Your task to perform on an android device: see creations saved in the google photos Image 0: 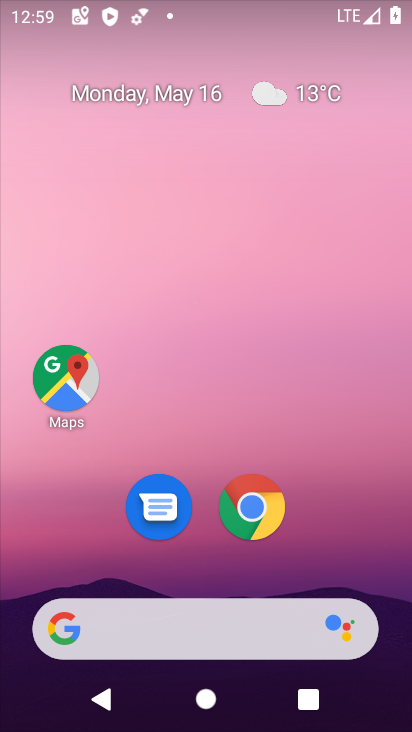
Step 0: drag from (347, 540) to (221, 99)
Your task to perform on an android device: see creations saved in the google photos Image 1: 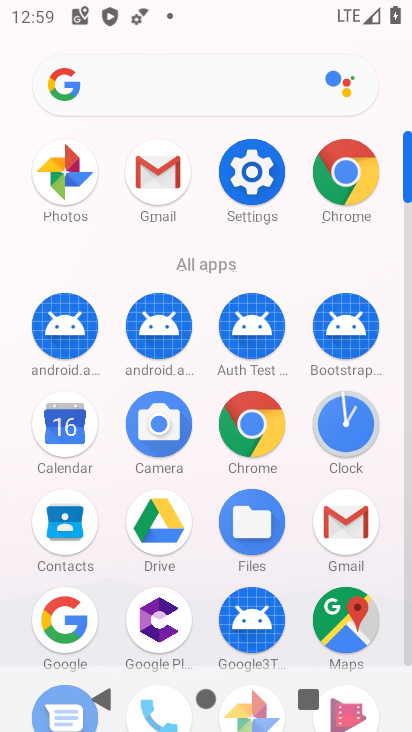
Step 1: click (70, 178)
Your task to perform on an android device: see creations saved in the google photos Image 2: 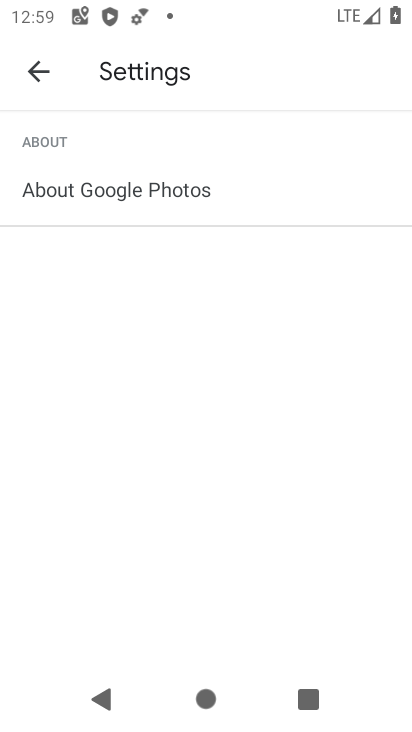
Step 2: click (30, 60)
Your task to perform on an android device: see creations saved in the google photos Image 3: 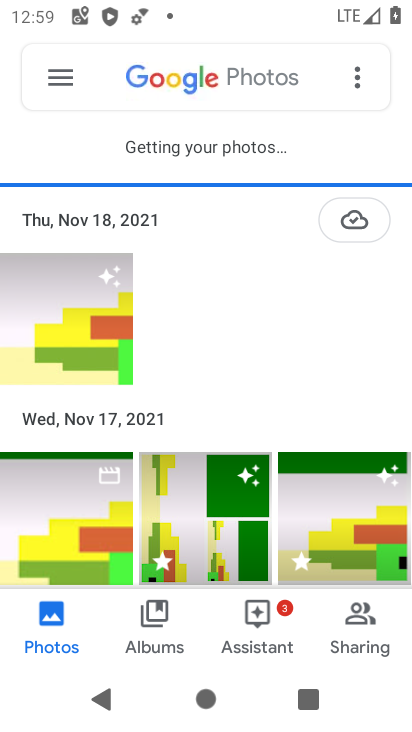
Step 3: click (194, 76)
Your task to perform on an android device: see creations saved in the google photos Image 4: 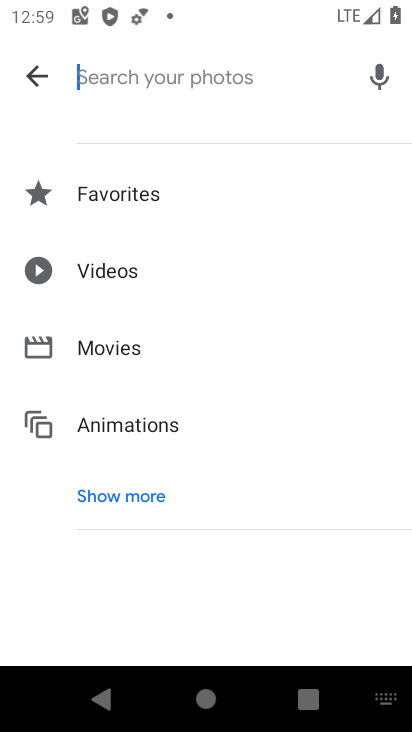
Step 4: type "creations"
Your task to perform on an android device: see creations saved in the google photos Image 5: 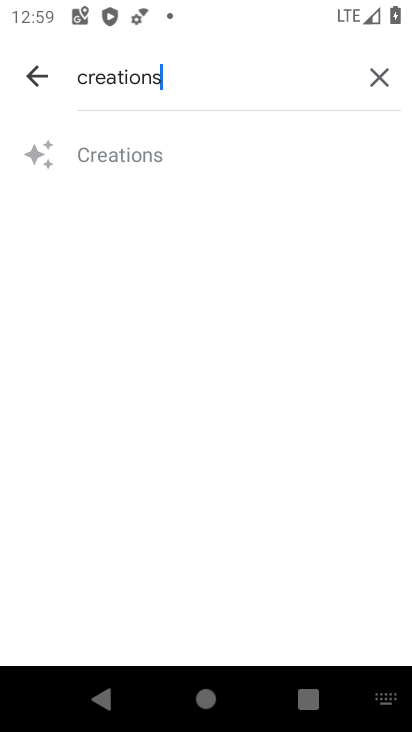
Step 5: click (153, 150)
Your task to perform on an android device: see creations saved in the google photos Image 6: 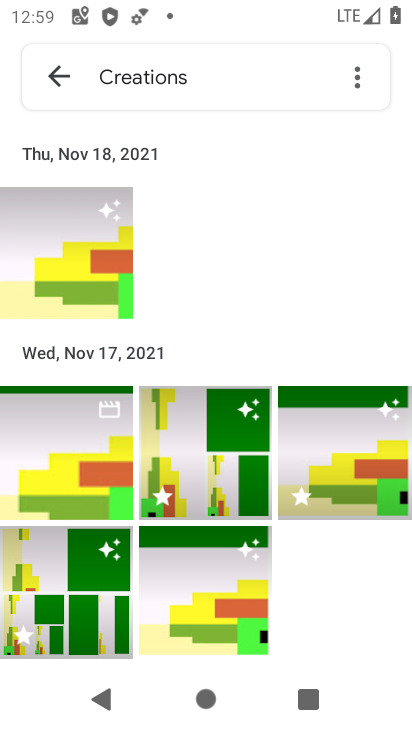
Step 6: task complete